Your task to perform on an android device: When is my next appointment? Image 0: 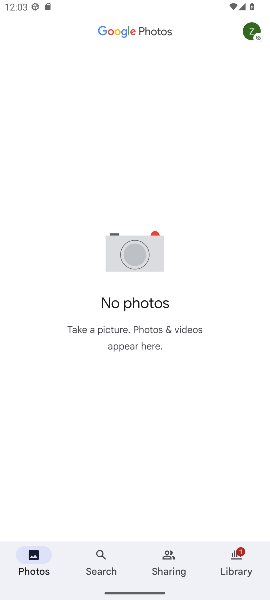
Step 0: press home button
Your task to perform on an android device: When is my next appointment? Image 1: 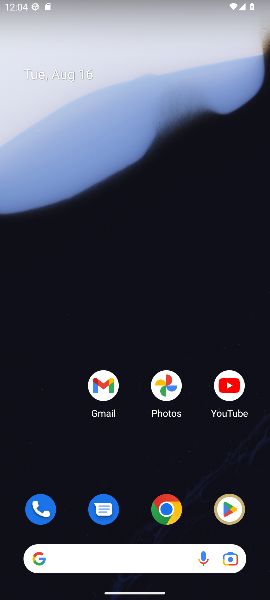
Step 1: drag from (141, 517) to (257, 334)
Your task to perform on an android device: When is my next appointment? Image 2: 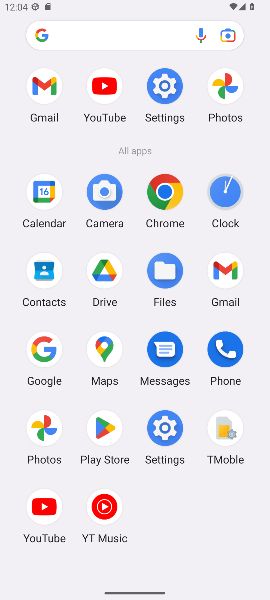
Step 2: click (45, 180)
Your task to perform on an android device: When is my next appointment? Image 3: 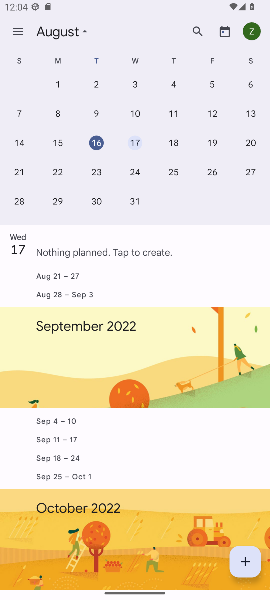
Step 3: click (11, 36)
Your task to perform on an android device: When is my next appointment? Image 4: 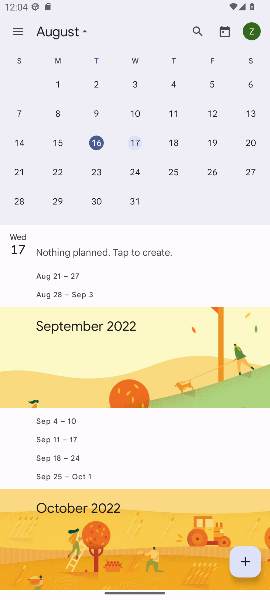
Step 4: click (20, 32)
Your task to perform on an android device: When is my next appointment? Image 5: 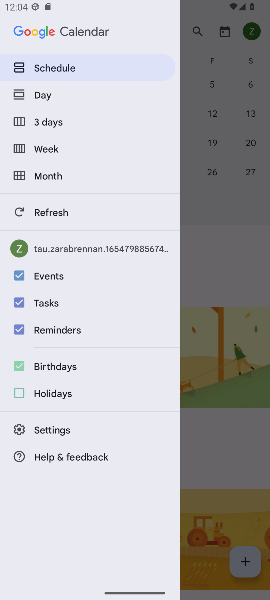
Step 5: click (70, 67)
Your task to perform on an android device: When is my next appointment? Image 6: 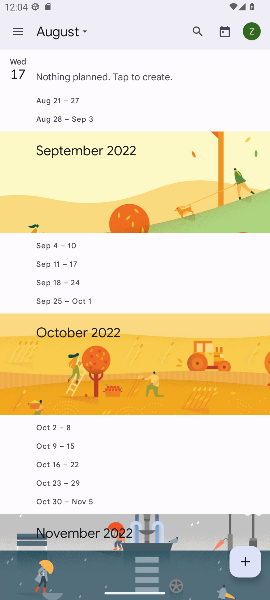
Step 6: task complete